Your task to perform on an android device: check storage Image 0: 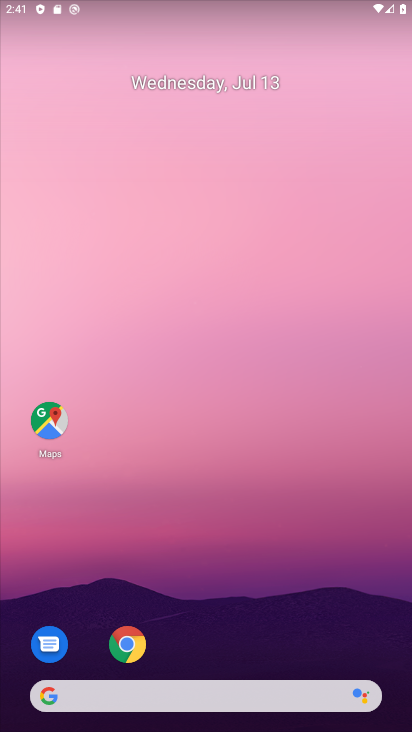
Step 0: drag from (200, 685) to (201, 23)
Your task to perform on an android device: check storage Image 1: 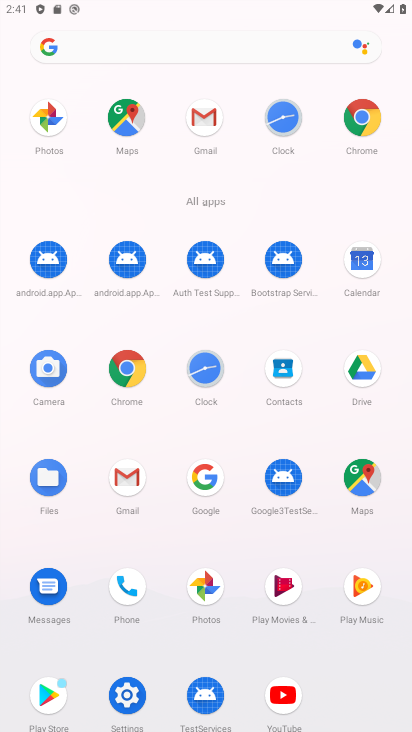
Step 1: click (128, 695)
Your task to perform on an android device: check storage Image 2: 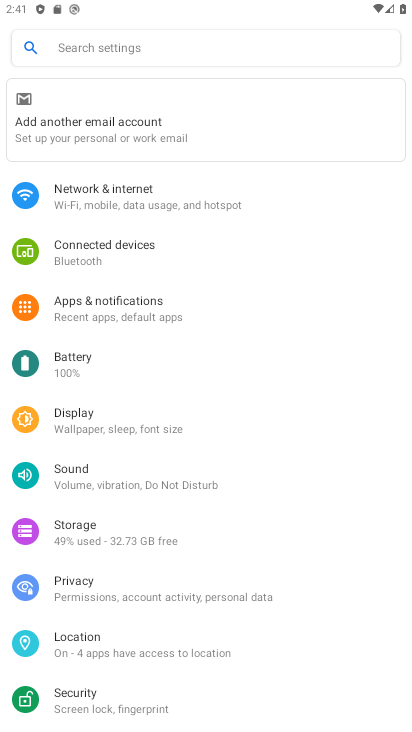
Step 2: click (117, 535)
Your task to perform on an android device: check storage Image 3: 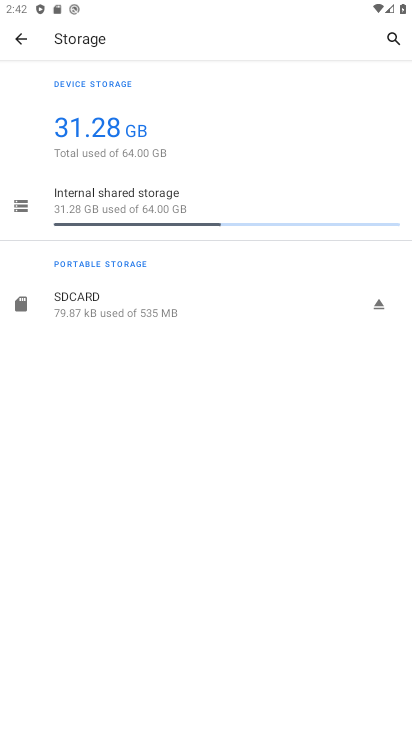
Step 3: task complete